Your task to perform on an android device: Add razer blade to the cart on target.com Image 0: 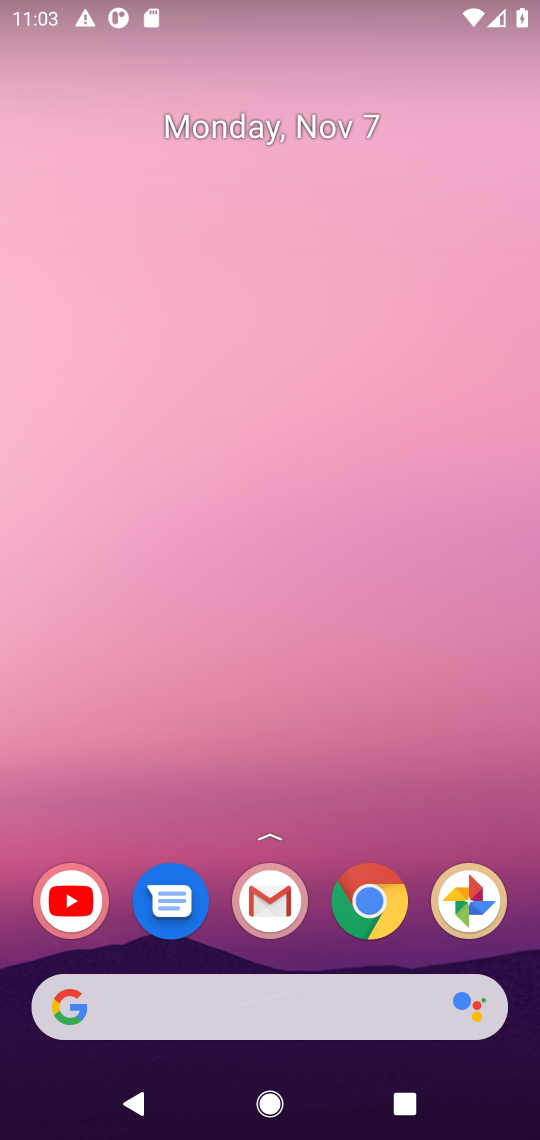
Step 0: click (377, 886)
Your task to perform on an android device: Add razer blade to the cart on target.com Image 1: 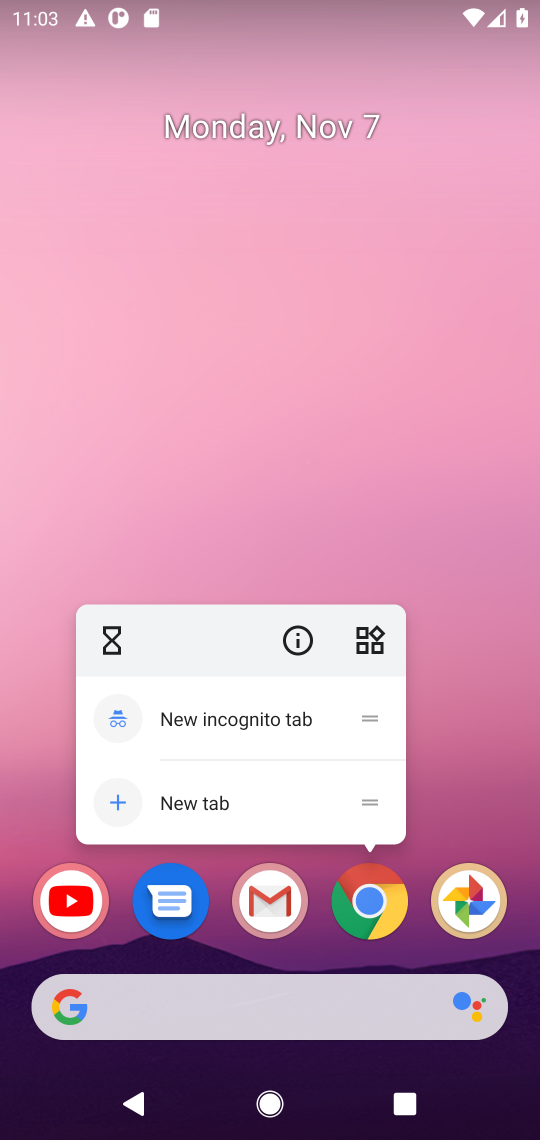
Step 1: click (359, 884)
Your task to perform on an android device: Add razer blade to the cart on target.com Image 2: 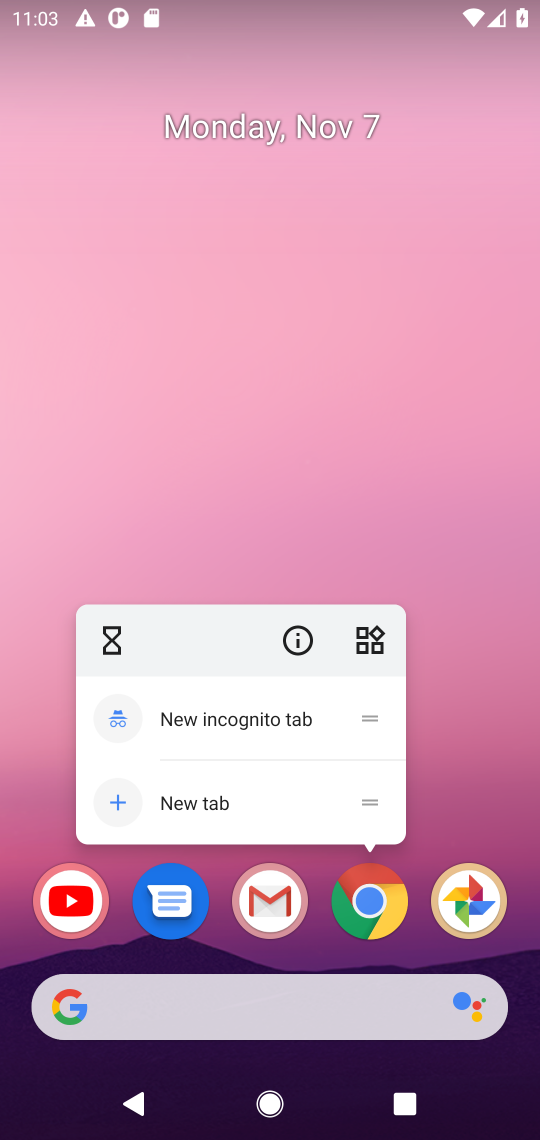
Step 2: click (359, 884)
Your task to perform on an android device: Add razer blade to the cart on target.com Image 3: 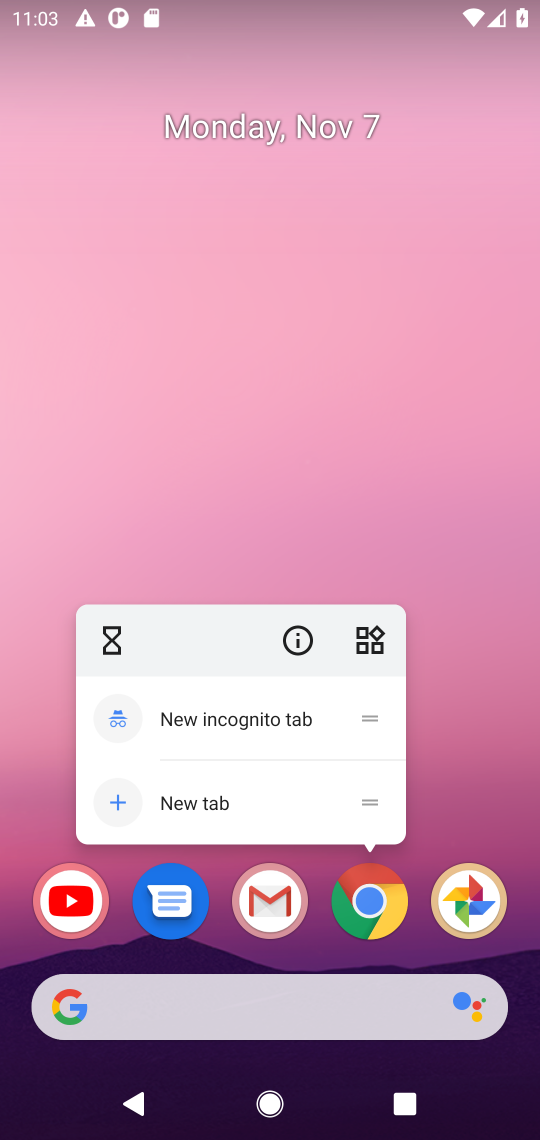
Step 3: click (372, 884)
Your task to perform on an android device: Add razer blade to the cart on target.com Image 4: 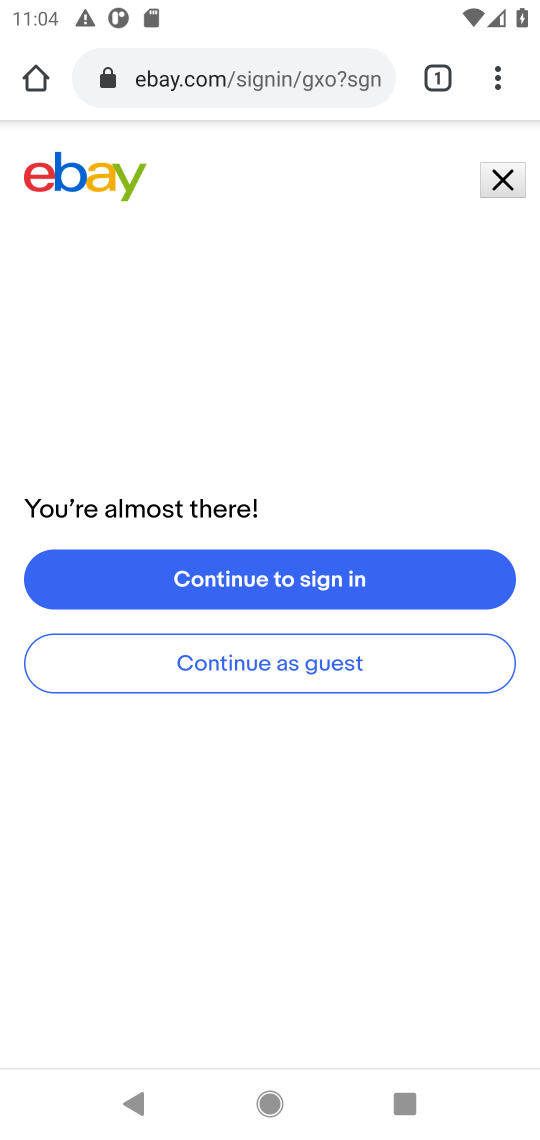
Step 4: click (269, 78)
Your task to perform on an android device: Add razer blade to the cart on target.com Image 5: 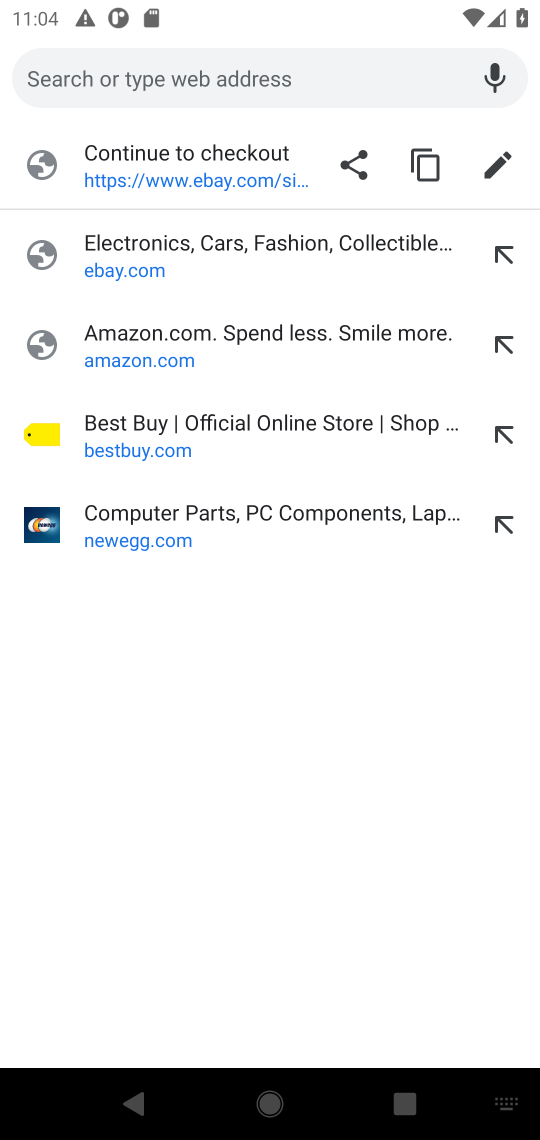
Step 5: type "target.com"
Your task to perform on an android device: Add razer blade to the cart on target.com Image 6: 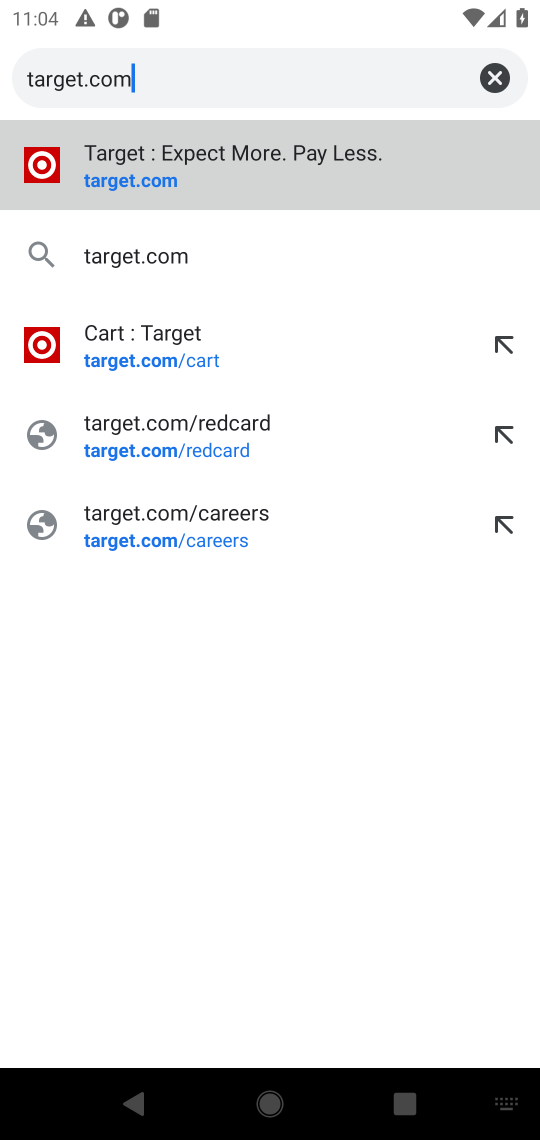
Step 6: click (301, 151)
Your task to perform on an android device: Add razer blade to the cart on target.com Image 7: 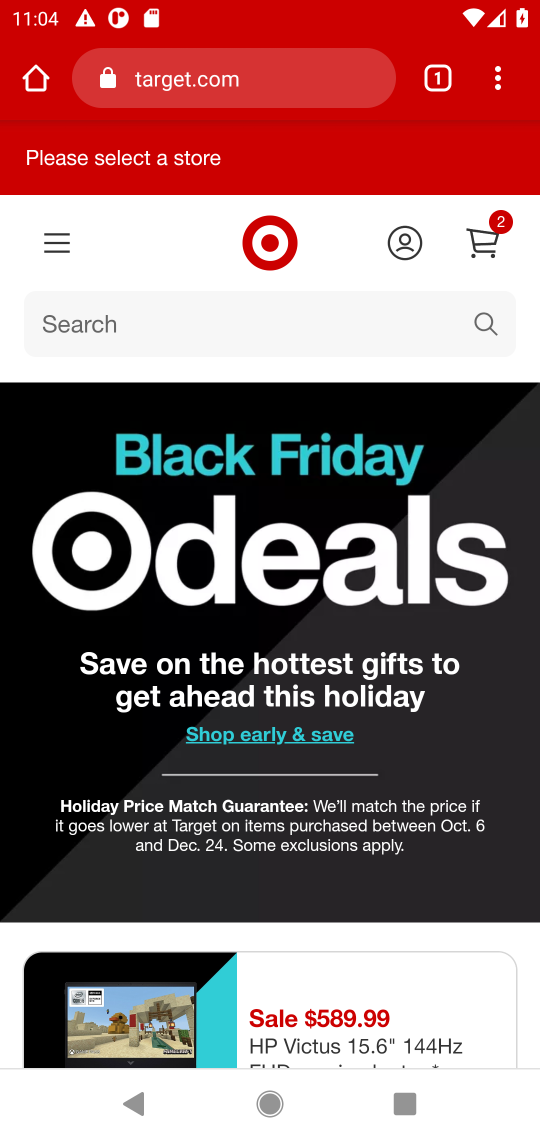
Step 7: click (164, 315)
Your task to perform on an android device: Add razer blade to the cart on target.com Image 8: 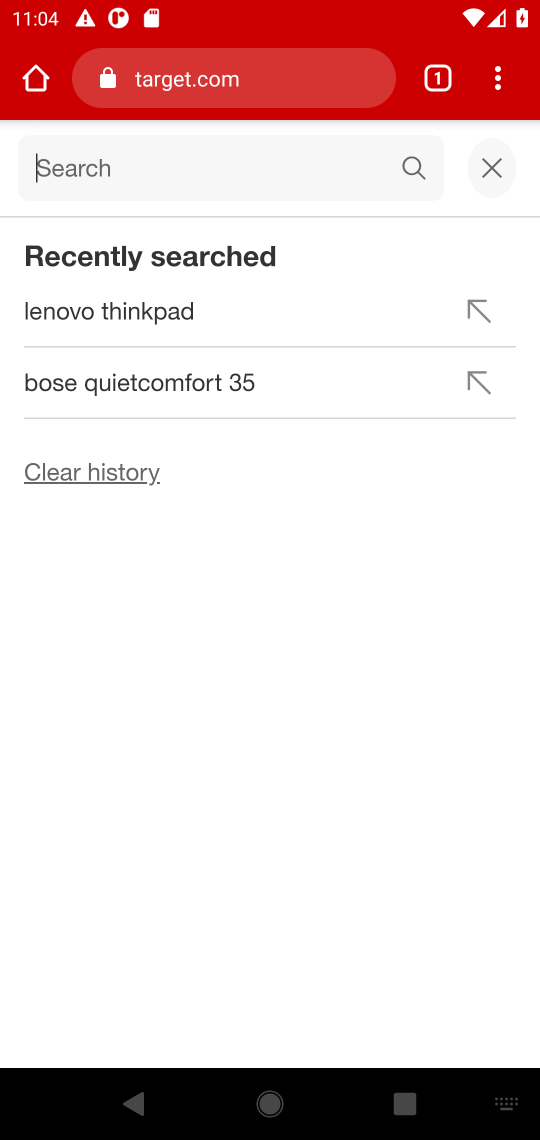
Step 8: type "razer blade"
Your task to perform on an android device: Add razer blade to the cart on target.com Image 9: 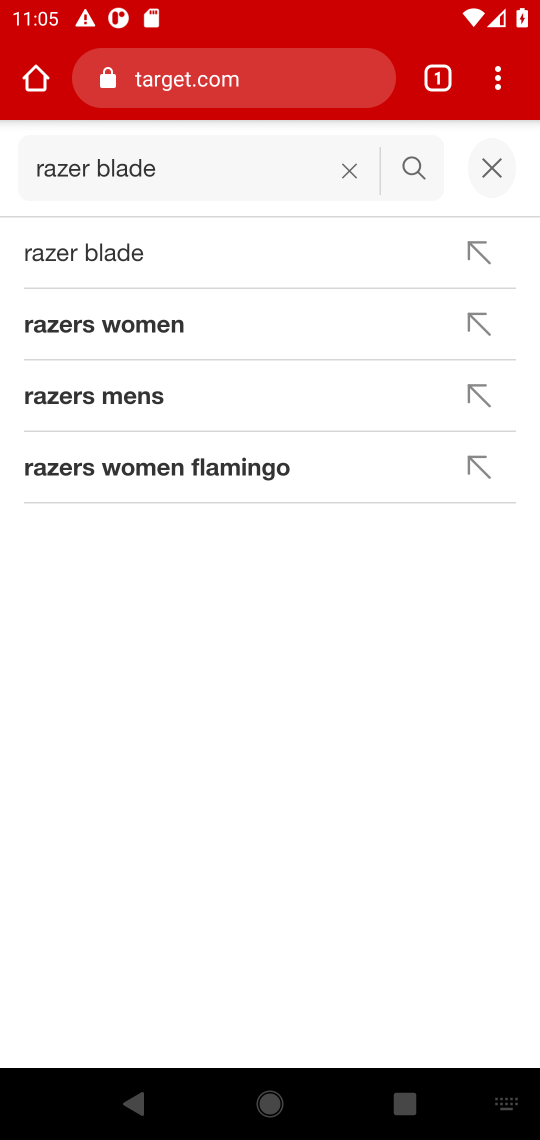
Step 9: click (237, 258)
Your task to perform on an android device: Add razer blade to the cart on target.com Image 10: 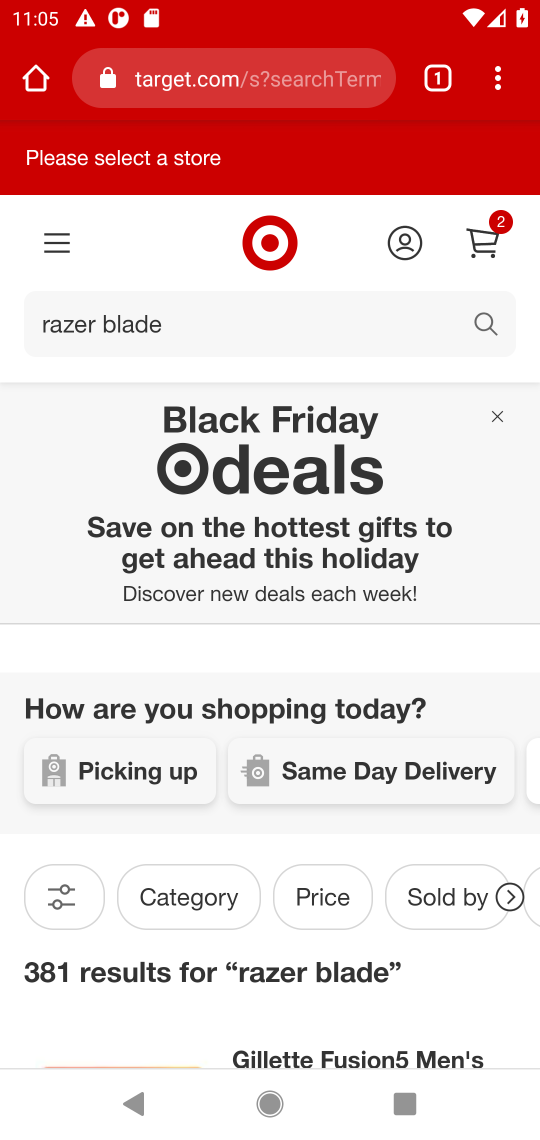
Step 10: drag from (344, 935) to (212, 59)
Your task to perform on an android device: Add razer blade to the cart on target.com Image 11: 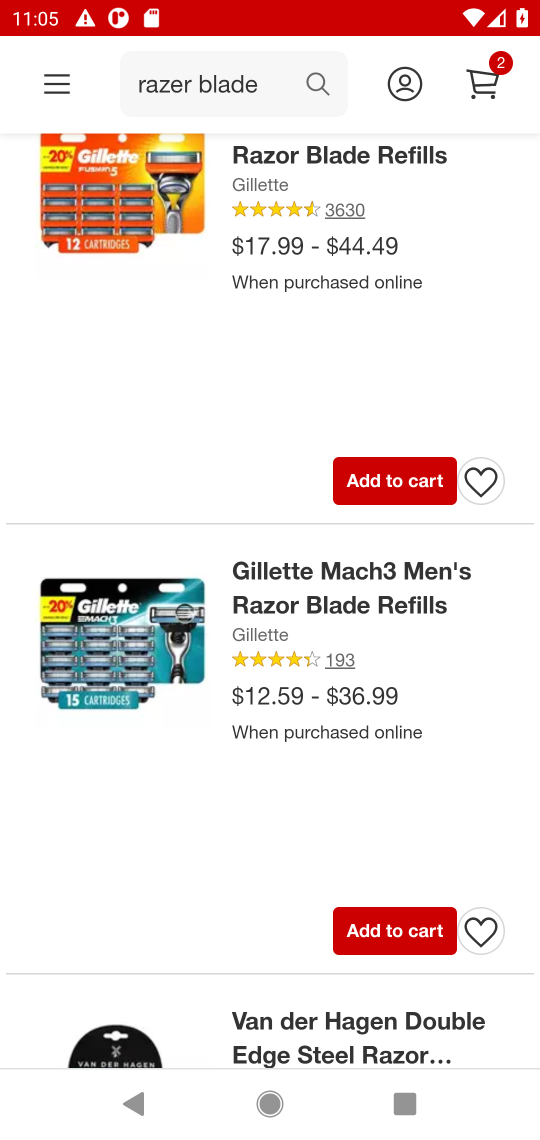
Step 11: click (345, 501)
Your task to perform on an android device: Add razer blade to the cart on target.com Image 12: 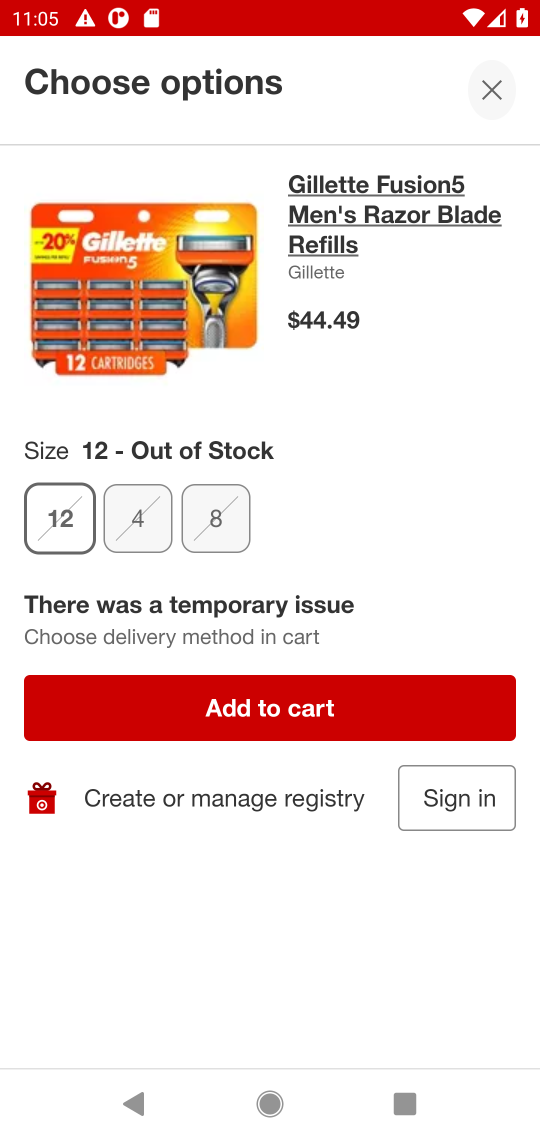
Step 12: click (361, 708)
Your task to perform on an android device: Add razer blade to the cart on target.com Image 13: 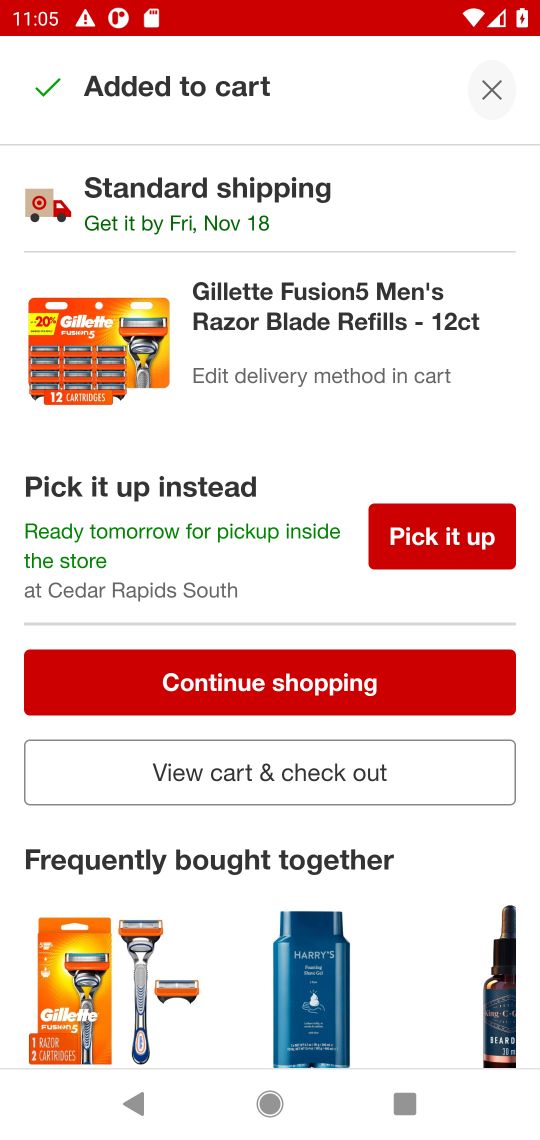
Step 13: task complete